Your task to perform on an android device: check out phone information Image 0: 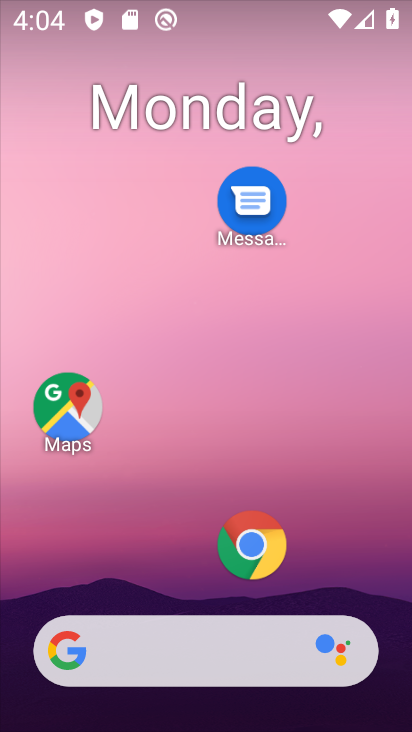
Step 0: drag from (202, 584) to (286, 37)
Your task to perform on an android device: check out phone information Image 1: 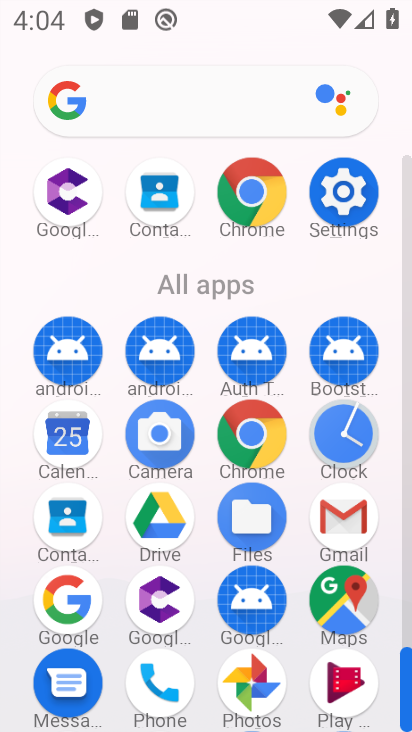
Step 1: click (341, 182)
Your task to perform on an android device: check out phone information Image 2: 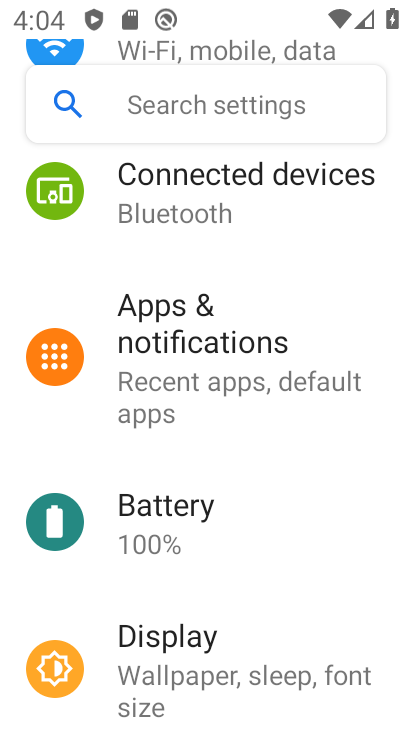
Step 2: drag from (265, 357) to (310, 54)
Your task to perform on an android device: check out phone information Image 3: 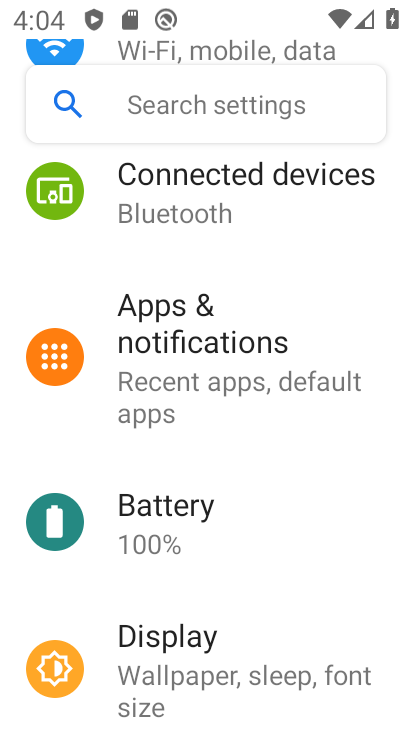
Step 3: drag from (242, 585) to (283, 153)
Your task to perform on an android device: check out phone information Image 4: 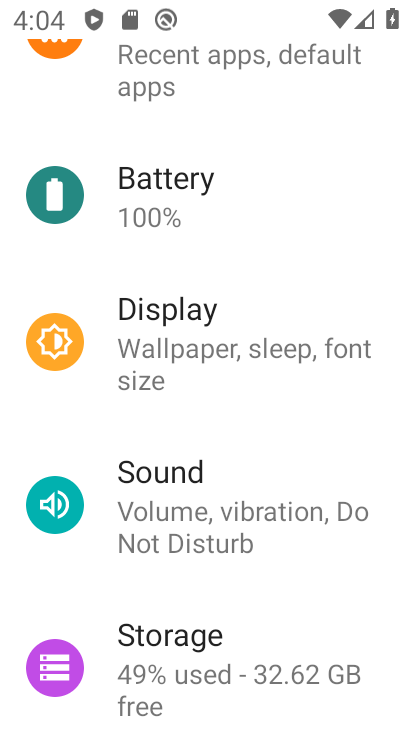
Step 4: drag from (253, 651) to (290, 305)
Your task to perform on an android device: check out phone information Image 5: 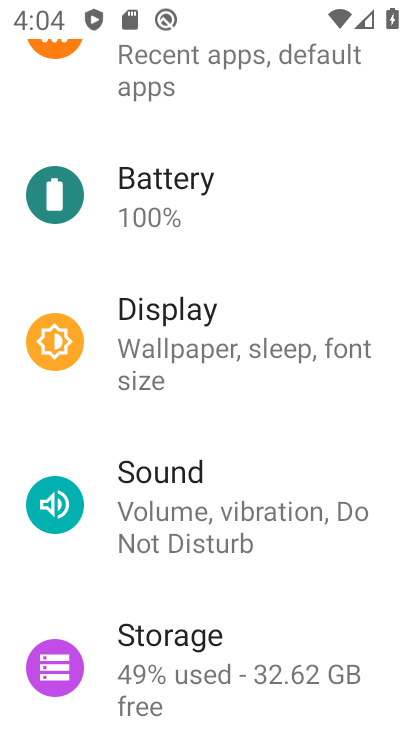
Step 5: drag from (271, 654) to (289, 63)
Your task to perform on an android device: check out phone information Image 6: 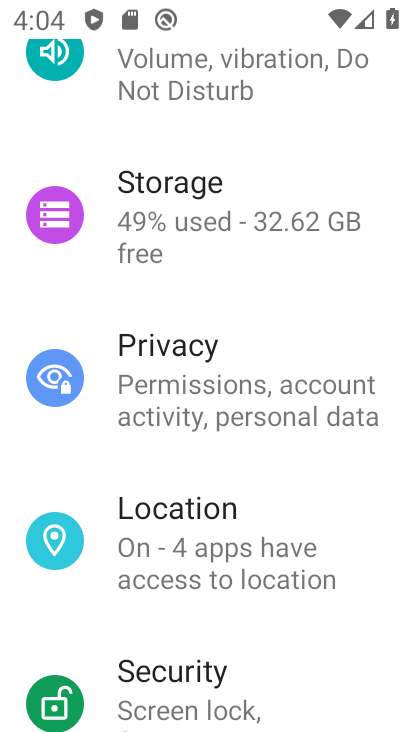
Step 6: drag from (286, 665) to (333, 105)
Your task to perform on an android device: check out phone information Image 7: 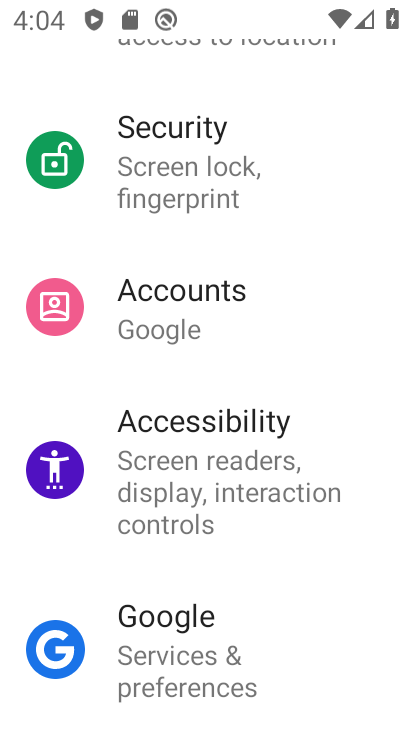
Step 7: drag from (270, 677) to (288, 111)
Your task to perform on an android device: check out phone information Image 8: 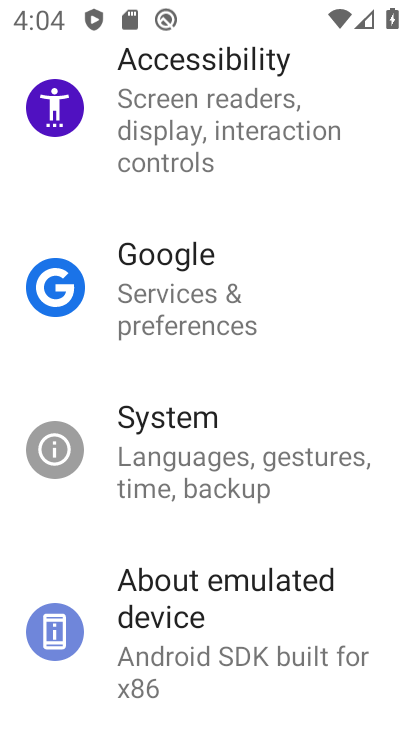
Step 8: drag from (255, 457) to (261, 343)
Your task to perform on an android device: check out phone information Image 9: 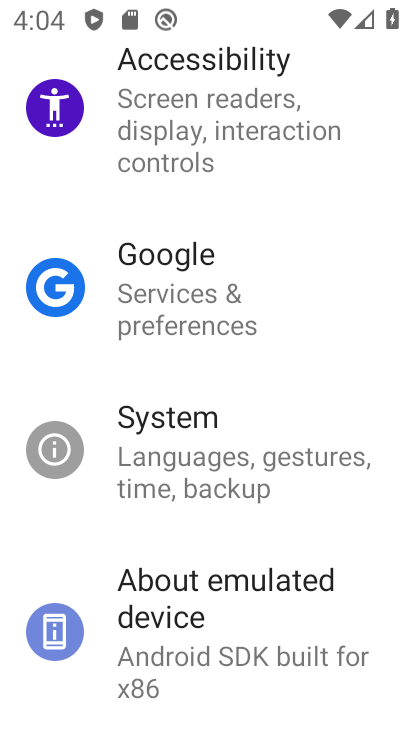
Step 9: click (250, 614)
Your task to perform on an android device: check out phone information Image 10: 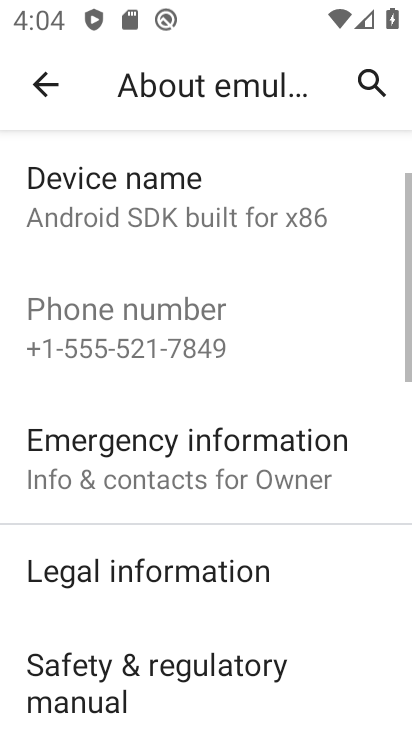
Step 10: task complete